Your task to perform on an android device: Open privacy settings Image 0: 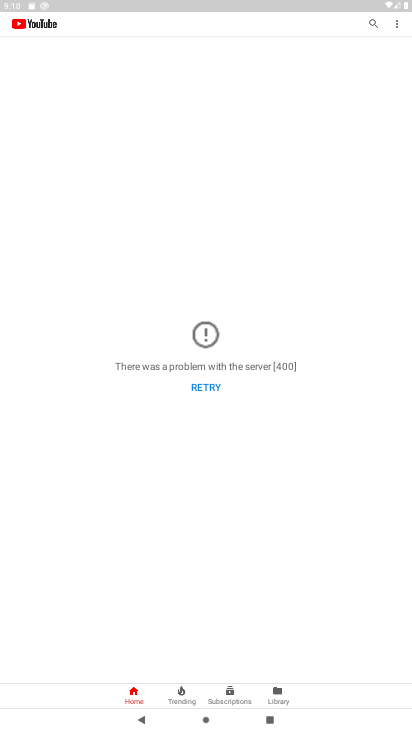
Step 0: press home button
Your task to perform on an android device: Open privacy settings Image 1: 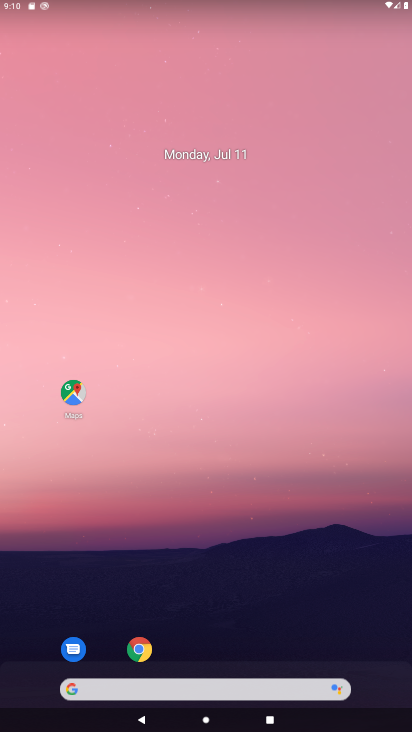
Step 1: drag from (217, 648) to (298, 51)
Your task to perform on an android device: Open privacy settings Image 2: 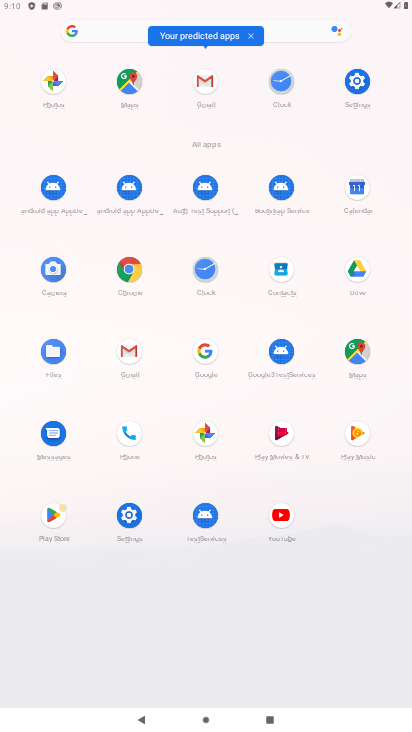
Step 2: click (135, 279)
Your task to perform on an android device: Open privacy settings Image 3: 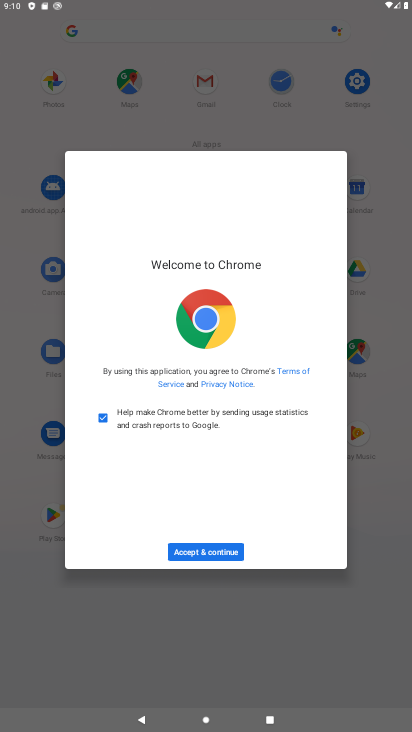
Step 3: click (224, 550)
Your task to perform on an android device: Open privacy settings Image 4: 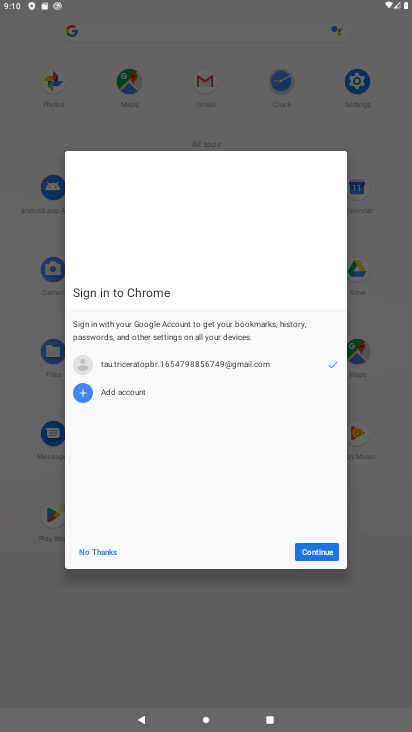
Step 4: click (317, 544)
Your task to perform on an android device: Open privacy settings Image 5: 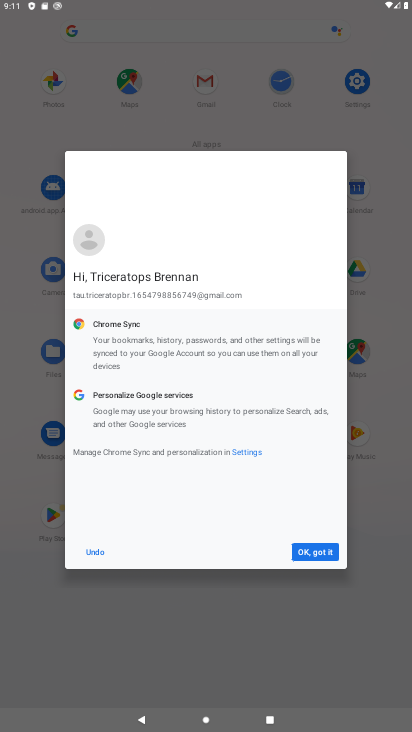
Step 5: click (321, 547)
Your task to perform on an android device: Open privacy settings Image 6: 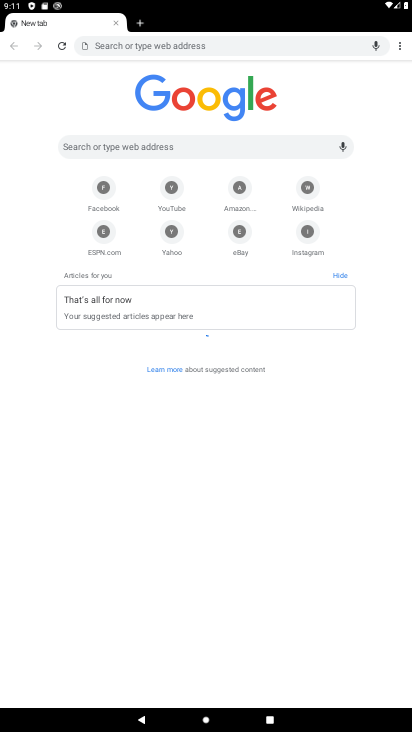
Step 6: drag from (397, 46) to (327, 211)
Your task to perform on an android device: Open privacy settings Image 7: 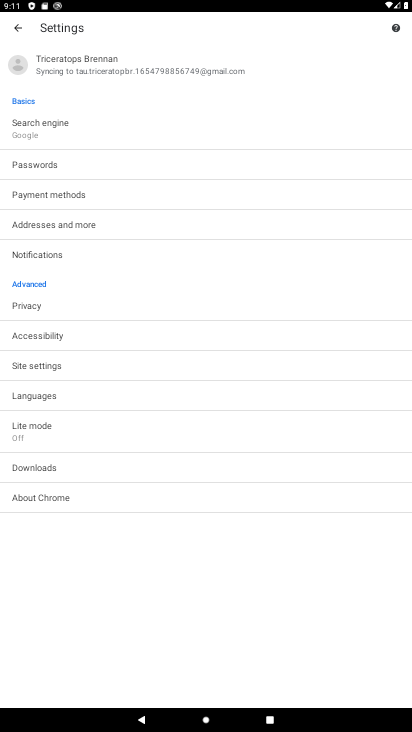
Step 7: click (92, 304)
Your task to perform on an android device: Open privacy settings Image 8: 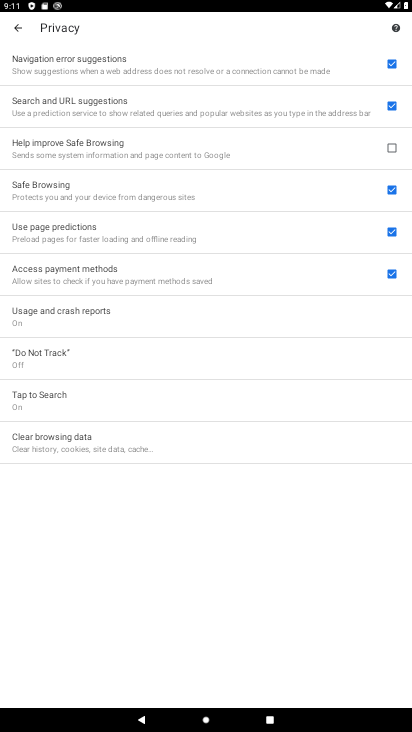
Step 8: task complete